Your task to perform on an android device: open wifi settings Image 0: 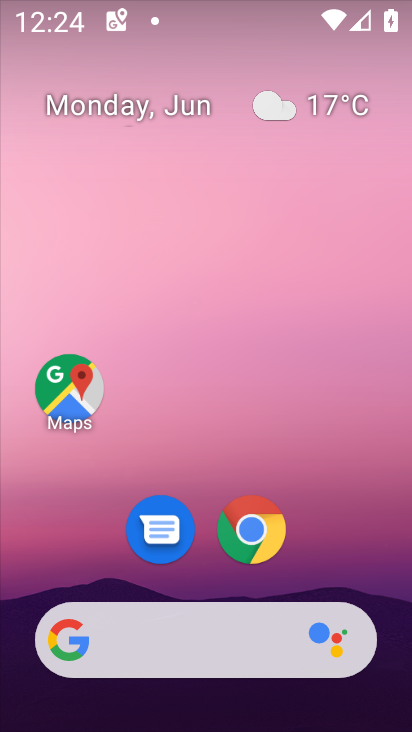
Step 0: drag from (375, 316) to (350, 2)
Your task to perform on an android device: open wifi settings Image 1: 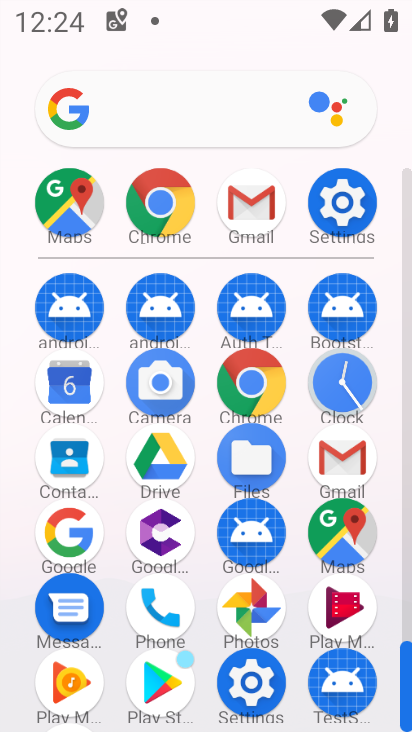
Step 1: click (345, 213)
Your task to perform on an android device: open wifi settings Image 2: 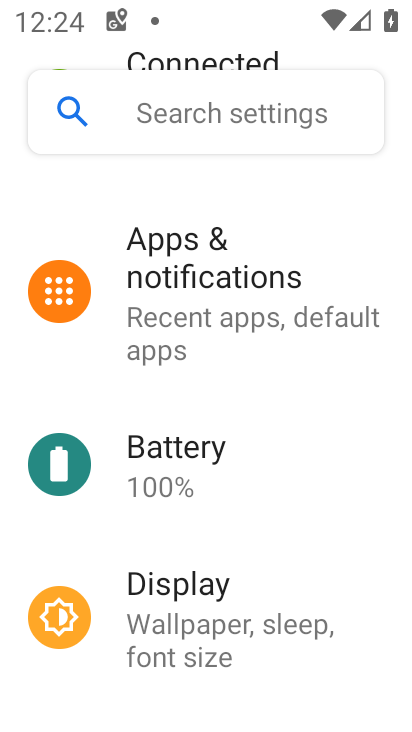
Step 2: click (152, 282)
Your task to perform on an android device: open wifi settings Image 3: 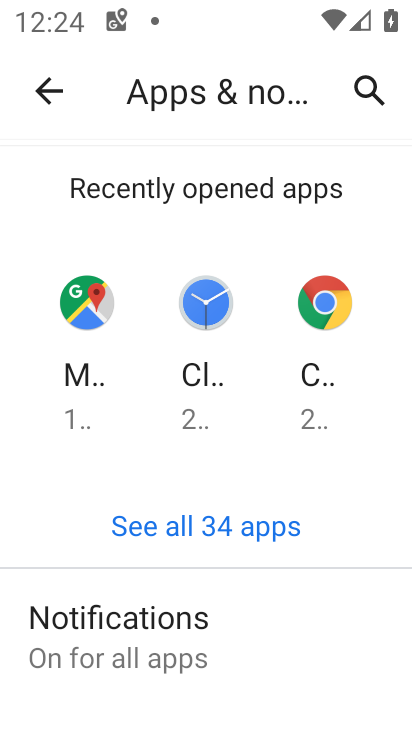
Step 3: drag from (310, 508) to (94, 7)
Your task to perform on an android device: open wifi settings Image 4: 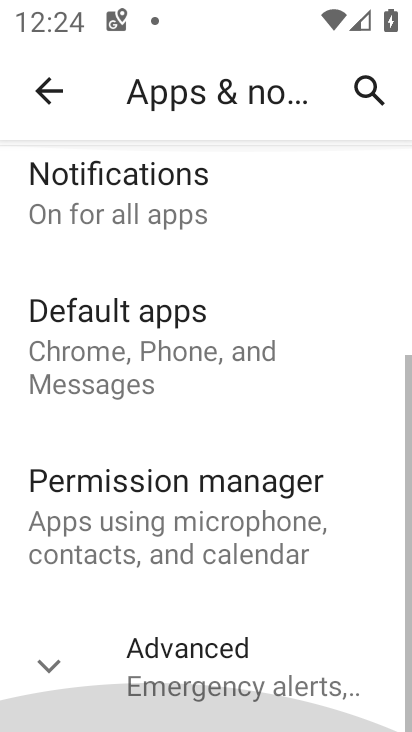
Step 4: click (60, 92)
Your task to perform on an android device: open wifi settings Image 5: 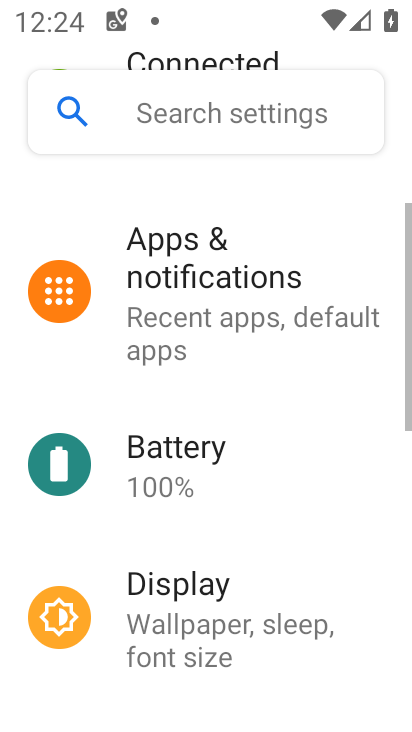
Step 5: drag from (139, 164) to (190, 722)
Your task to perform on an android device: open wifi settings Image 6: 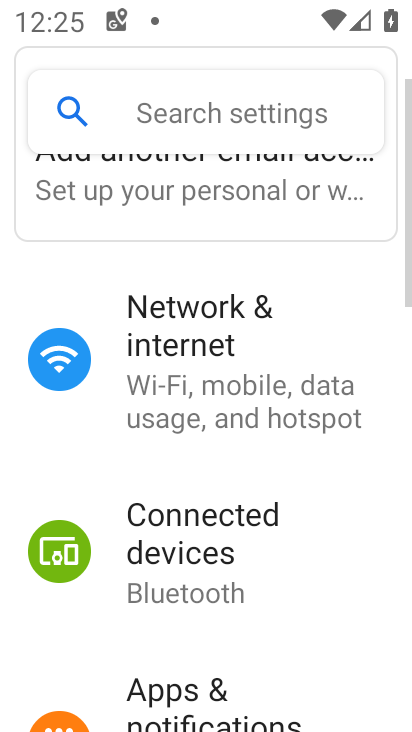
Step 6: drag from (235, 232) to (259, 694)
Your task to perform on an android device: open wifi settings Image 7: 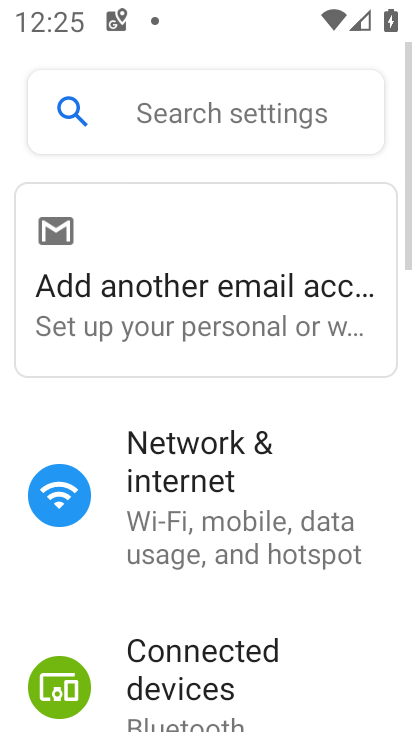
Step 7: click (211, 496)
Your task to perform on an android device: open wifi settings Image 8: 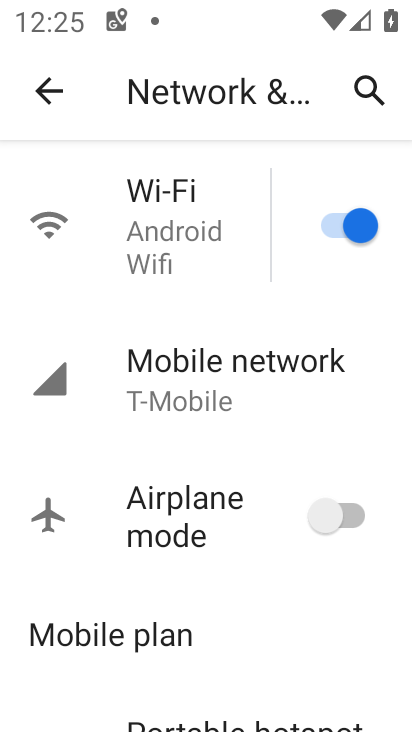
Step 8: click (148, 223)
Your task to perform on an android device: open wifi settings Image 9: 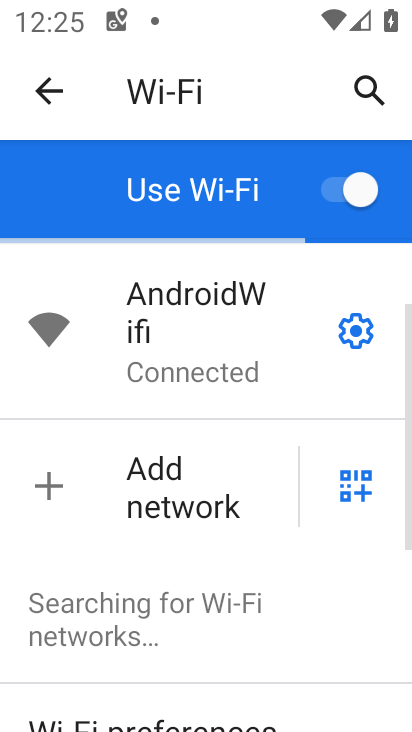
Step 9: task complete